Your task to perform on an android device: Open Google Maps Image 0: 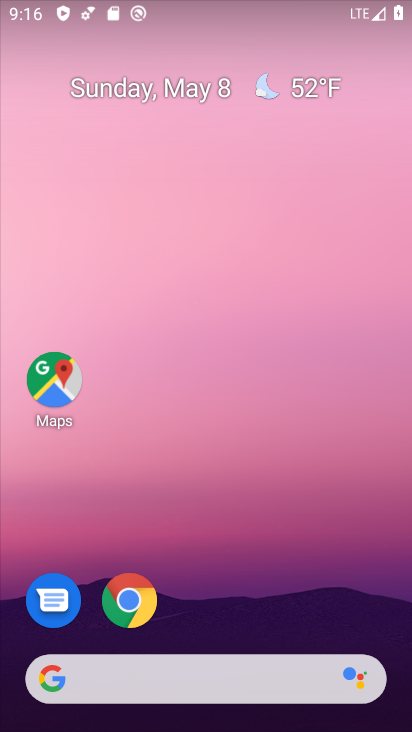
Step 0: click (72, 370)
Your task to perform on an android device: Open Google Maps Image 1: 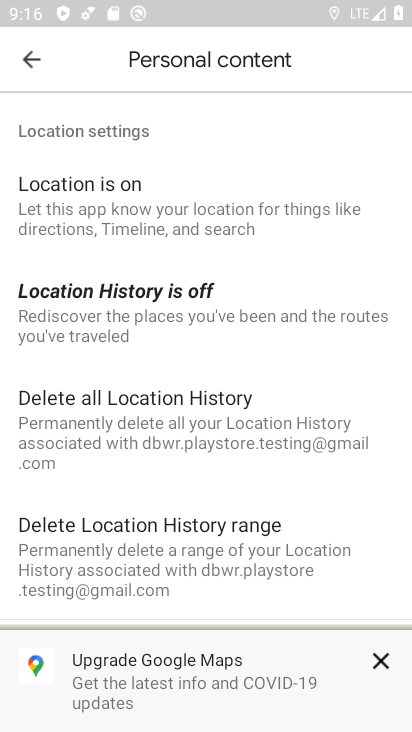
Step 1: click (27, 49)
Your task to perform on an android device: Open Google Maps Image 2: 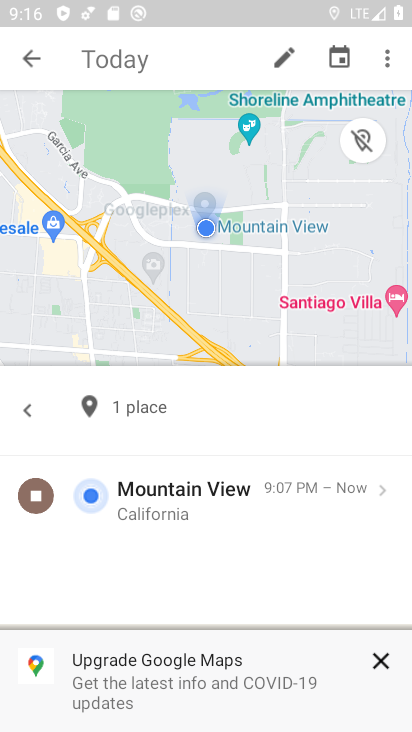
Step 2: click (27, 49)
Your task to perform on an android device: Open Google Maps Image 3: 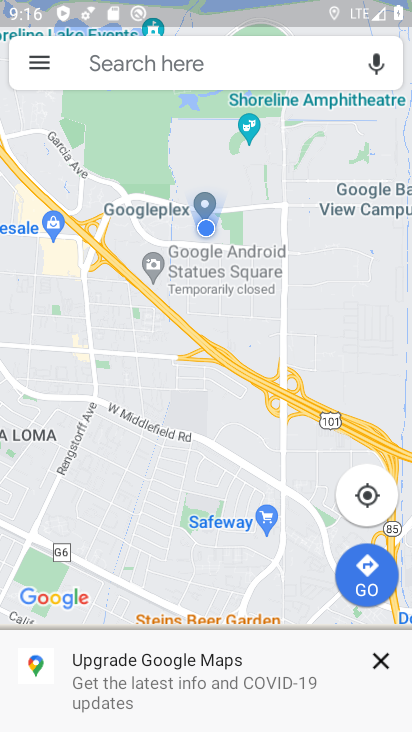
Step 3: task complete